Your task to perform on an android device: remove spam from my inbox in the gmail app Image 0: 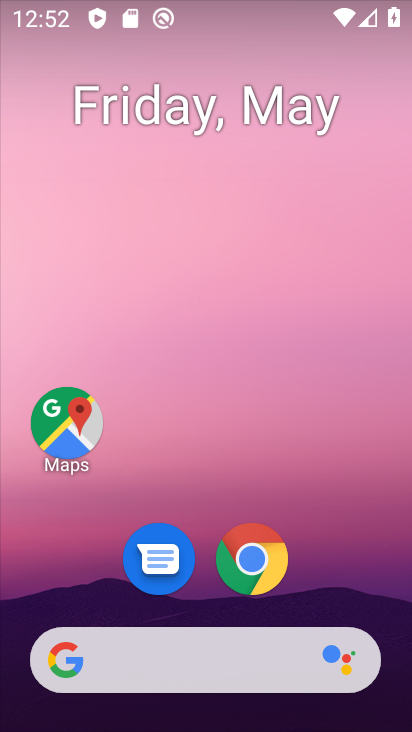
Step 0: drag from (330, 522) to (201, 145)
Your task to perform on an android device: remove spam from my inbox in the gmail app Image 1: 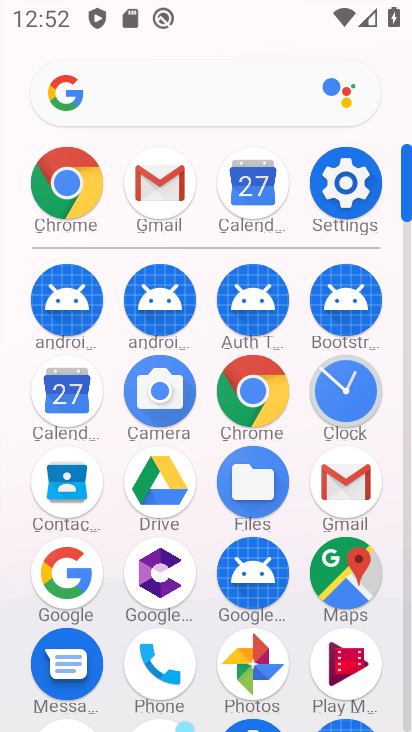
Step 1: click (360, 488)
Your task to perform on an android device: remove spam from my inbox in the gmail app Image 2: 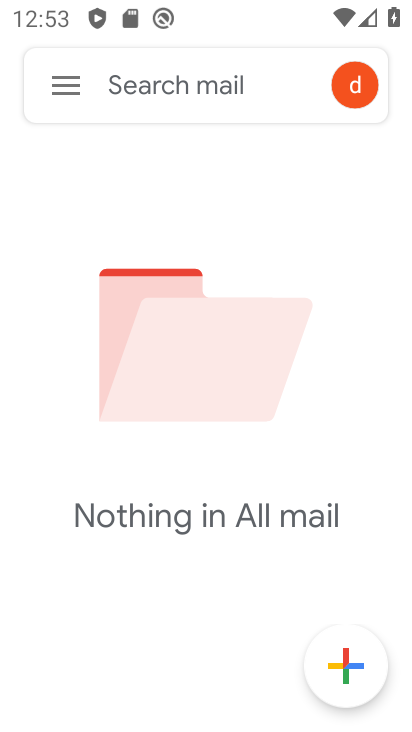
Step 2: click (57, 84)
Your task to perform on an android device: remove spam from my inbox in the gmail app Image 3: 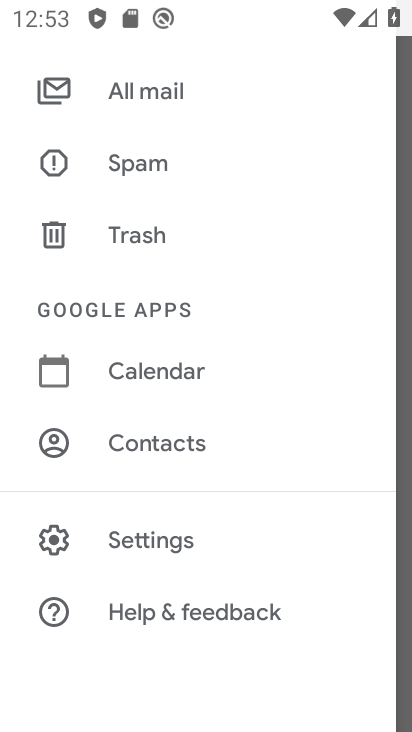
Step 3: drag from (211, 172) to (102, 649)
Your task to perform on an android device: remove spam from my inbox in the gmail app Image 4: 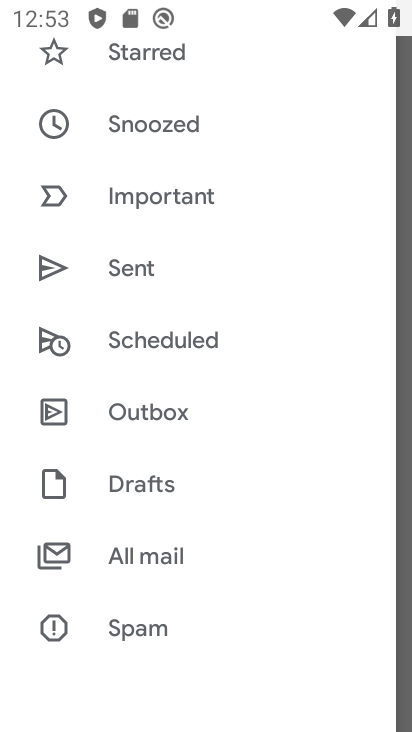
Step 4: drag from (138, 85) to (28, 527)
Your task to perform on an android device: remove spam from my inbox in the gmail app Image 5: 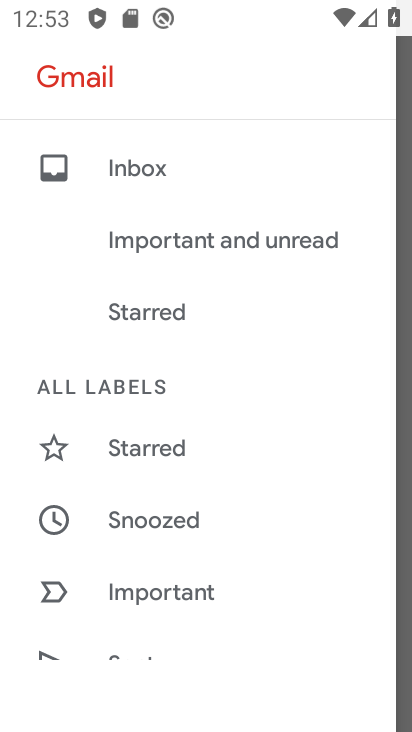
Step 5: click (122, 155)
Your task to perform on an android device: remove spam from my inbox in the gmail app Image 6: 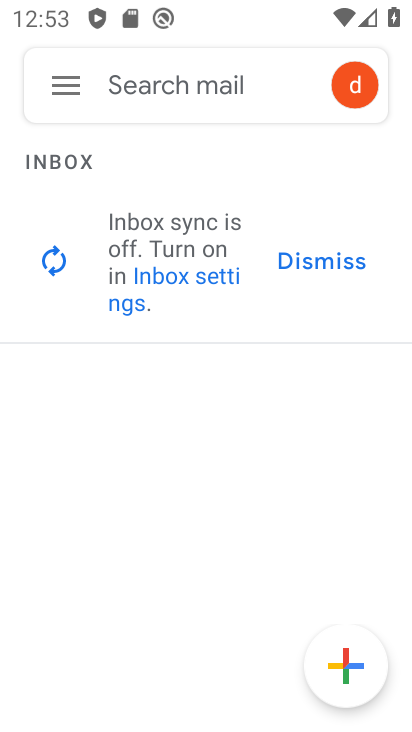
Step 6: task complete